Your task to perform on an android device: toggle priority inbox in the gmail app Image 0: 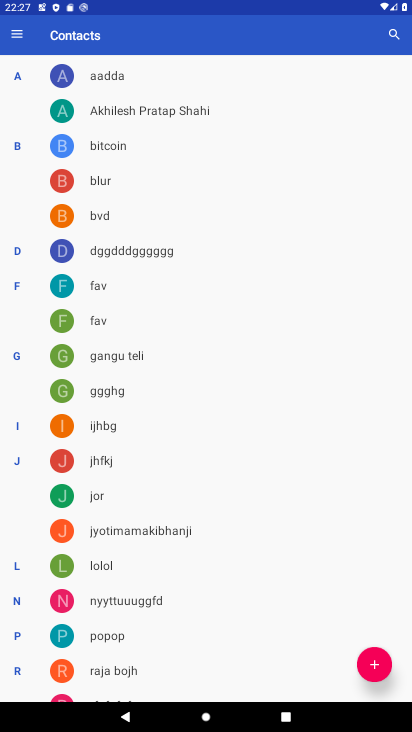
Step 0: press home button
Your task to perform on an android device: toggle priority inbox in the gmail app Image 1: 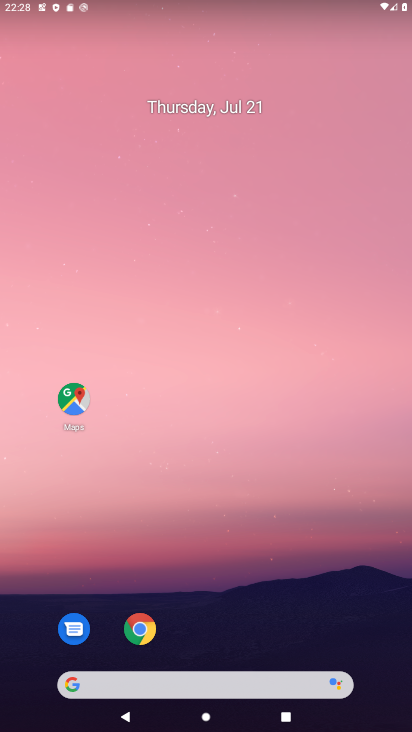
Step 1: drag from (214, 630) to (265, 46)
Your task to perform on an android device: toggle priority inbox in the gmail app Image 2: 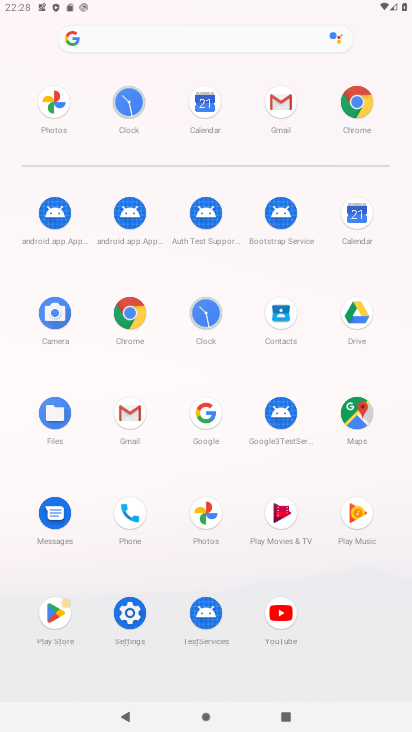
Step 2: click (275, 106)
Your task to perform on an android device: toggle priority inbox in the gmail app Image 3: 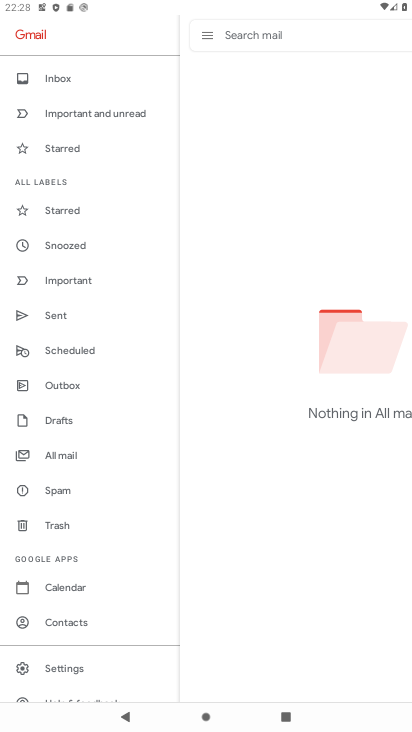
Step 3: click (60, 674)
Your task to perform on an android device: toggle priority inbox in the gmail app Image 4: 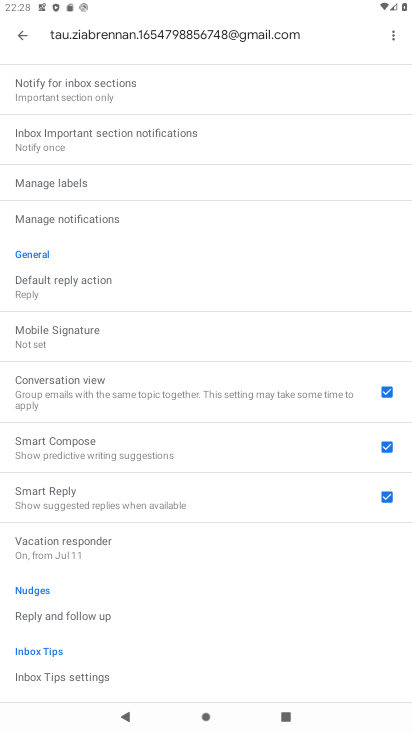
Step 4: drag from (279, 153) to (295, 567)
Your task to perform on an android device: toggle priority inbox in the gmail app Image 5: 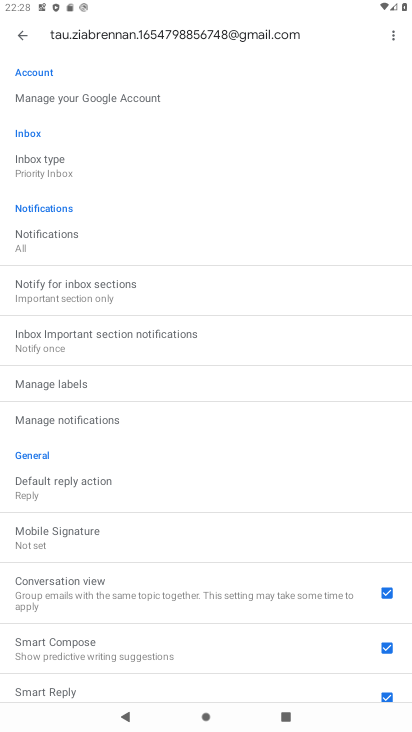
Step 5: click (37, 165)
Your task to perform on an android device: toggle priority inbox in the gmail app Image 6: 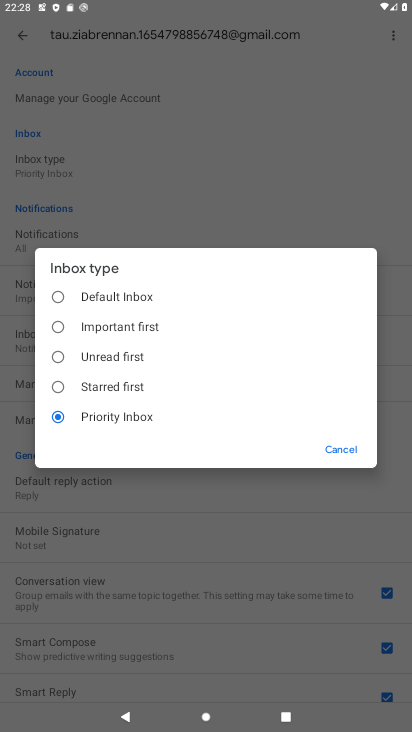
Step 6: click (58, 297)
Your task to perform on an android device: toggle priority inbox in the gmail app Image 7: 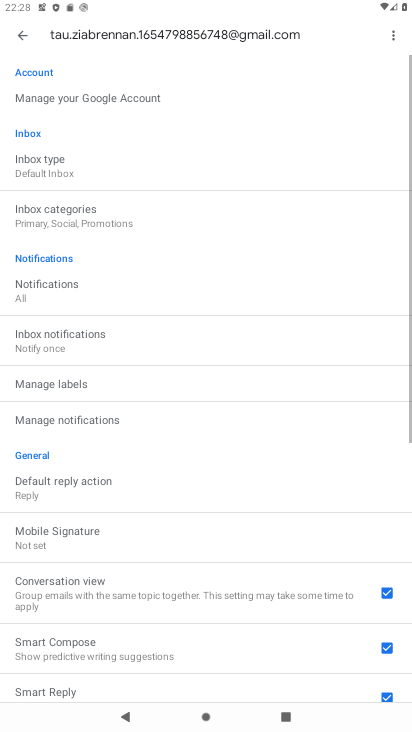
Step 7: task complete